Your task to perform on an android device: turn on the 24-hour format for clock Image 0: 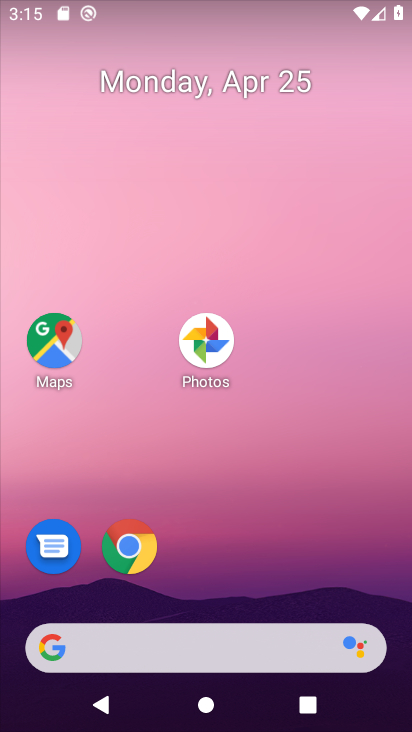
Step 0: drag from (272, 596) to (320, 277)
Your task to perform on an android device: turn on the 24-hour format for clock Image 1: 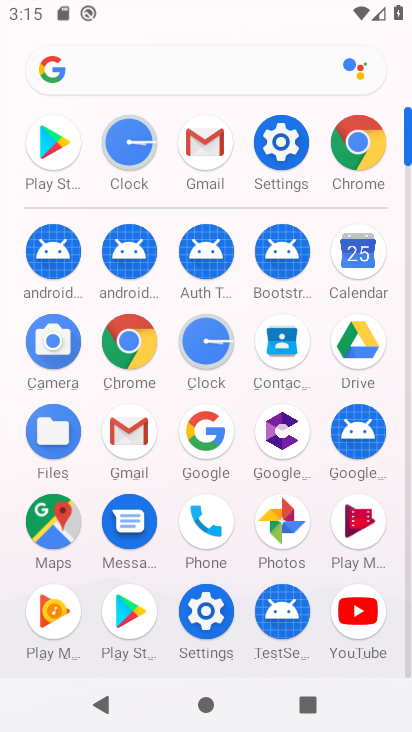
Step 1: click (195, 341)
Your task to perform on an android device: turn on the 24-hour format for clock Image 2: 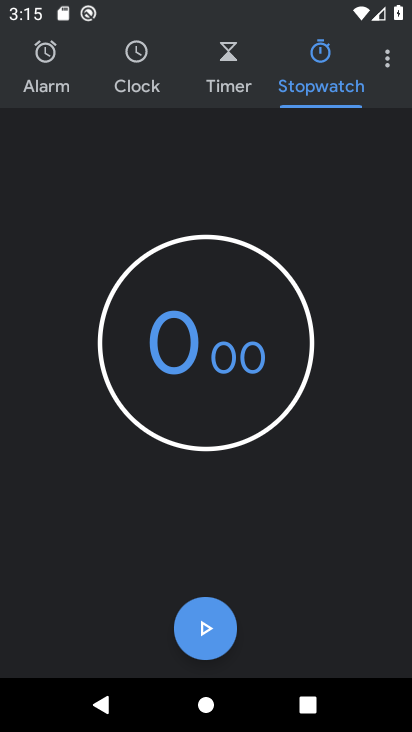
Step 2: click (380, 61)
Your task to perform on an android device: turn on the 24-hour format for clock Image 3: 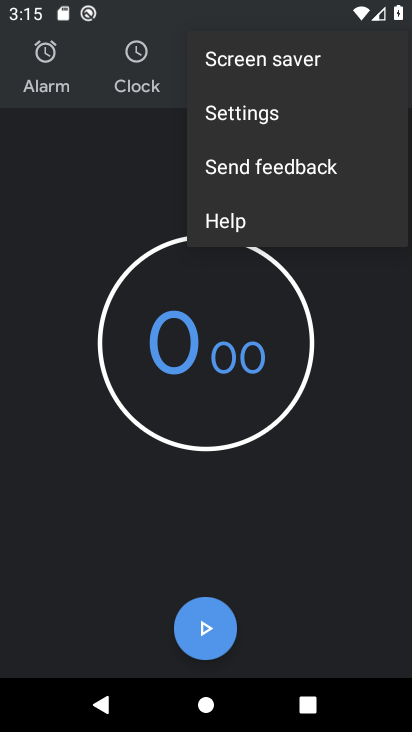
Step 3: click (286, 113)
Your task to perform on an android device: turn on the 24-hour format for clock Image 4: 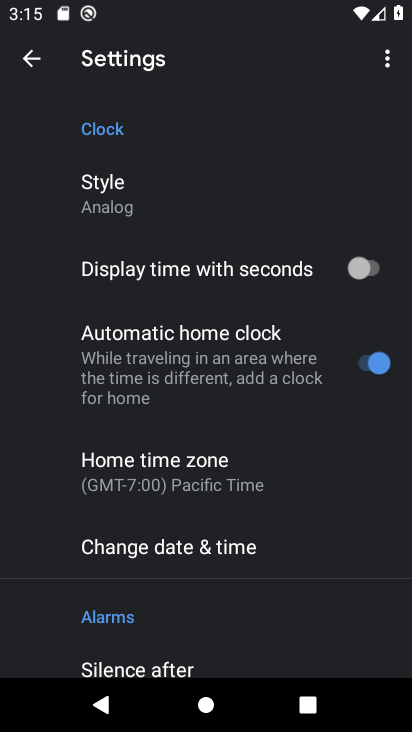
Step 4: click (190, 548)
Your task to perform on an android device: turn on the 24-hour format for clock Image 5: 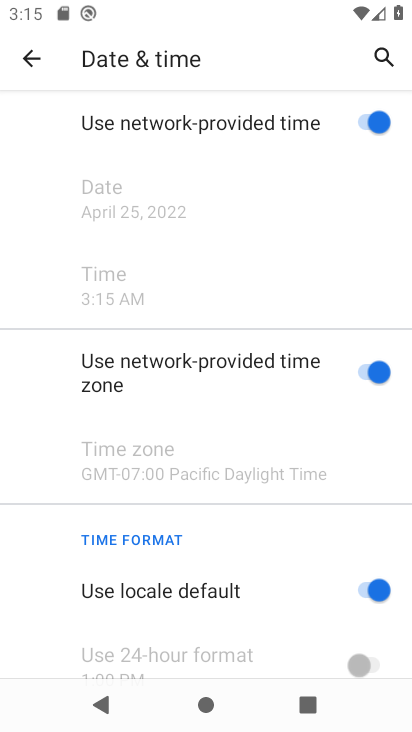
Step 5: drag from (264, 487) to (305, 185)
Your task to perform on an android device: turn on the 24-hour format for clock Image 6: 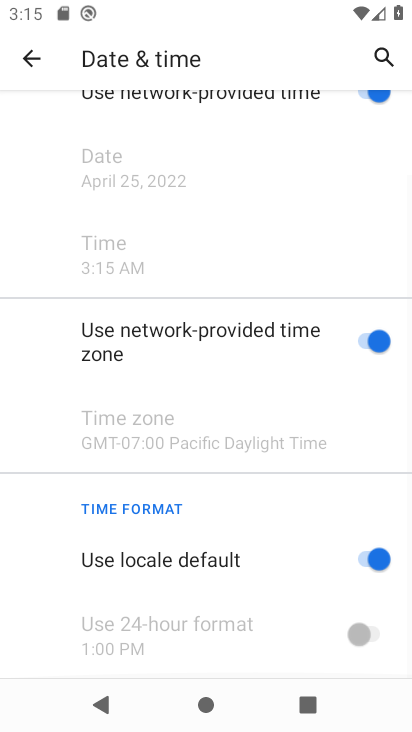
Step 6: click (376, 561)
Your task to perform on an android device: turn on the 24-hour format for clock Image 7: 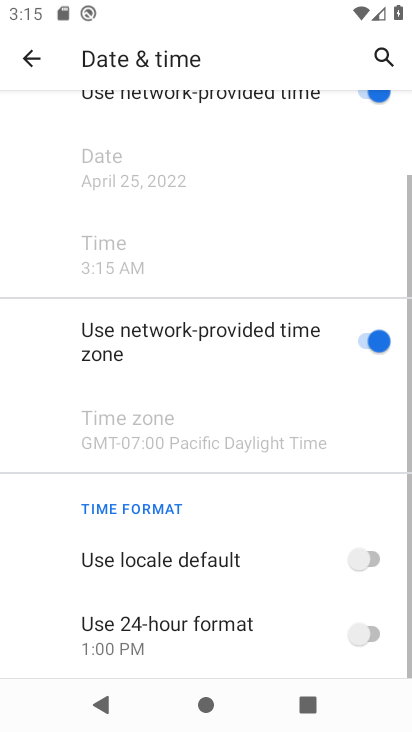
Step 7: click (369, 629)
Your task to perform on an android device: turn on the 24-hour format for clock Image 8: 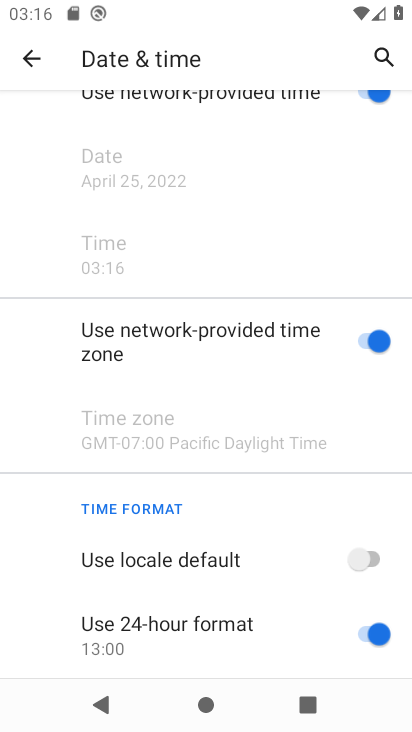
Step 8: task complete